Your task to perform on an android device: find which apps use the phone's location Image 0: 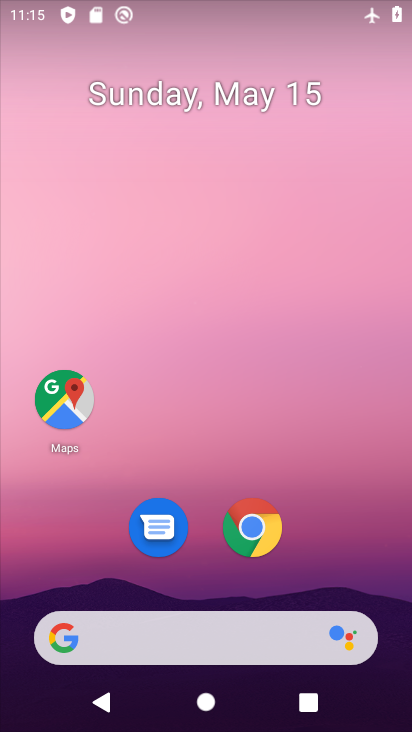
Step 0: drag from (358, 546) to (286, 8)
Your task to perform on an android device: find which apps use the phone's location Image 1: 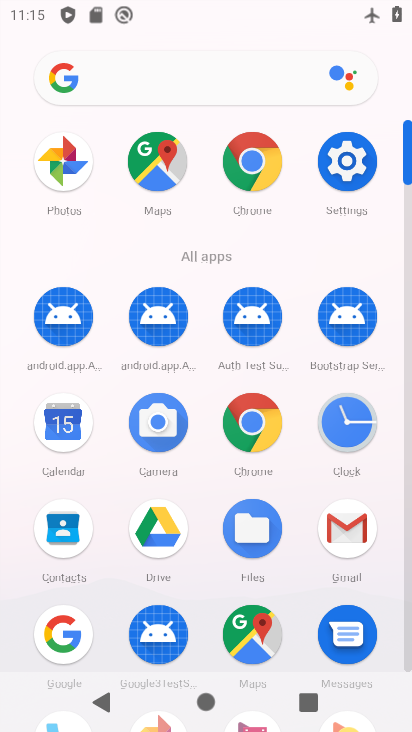
Step 1: drag from (18, 560) to (9, 209)
Your task to perform on an android device: find which apps use the phone's location Image 2: 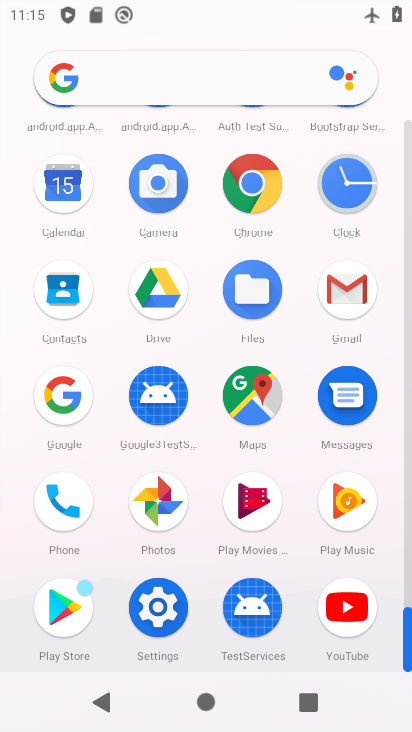
Step 2: click (158, 605)
Your task to perform on an android device: find which apps use the phone's location Image 3: 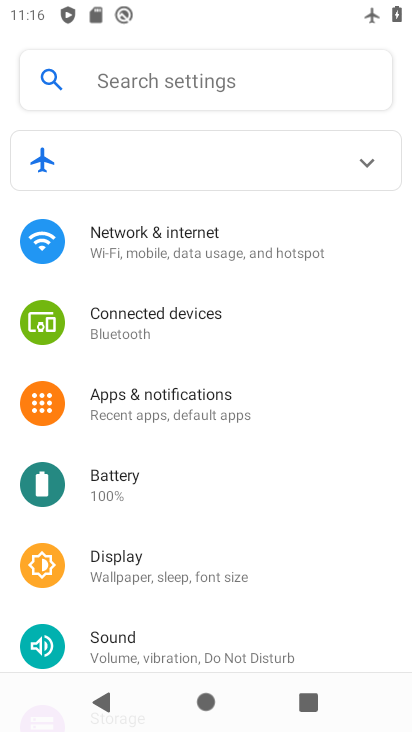
Step 3: drag from (284, 574) to (278, 193)
Your task to perform on an android device: find which apps use the phone's location Image 4: 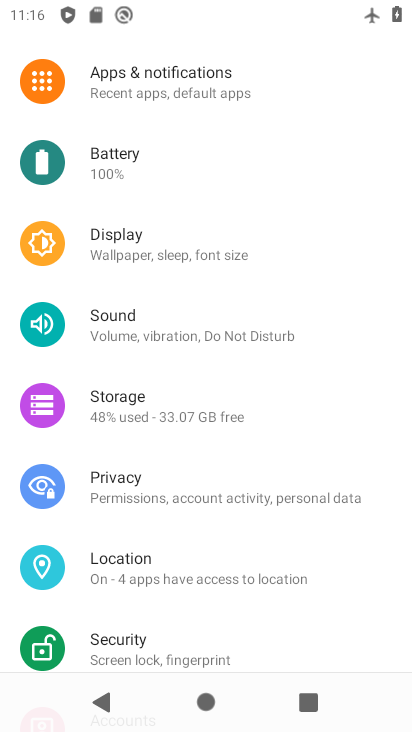
Step 4: click (136, 585)
Your task to perform on an android device: find which apps use the phone's location Image 5: 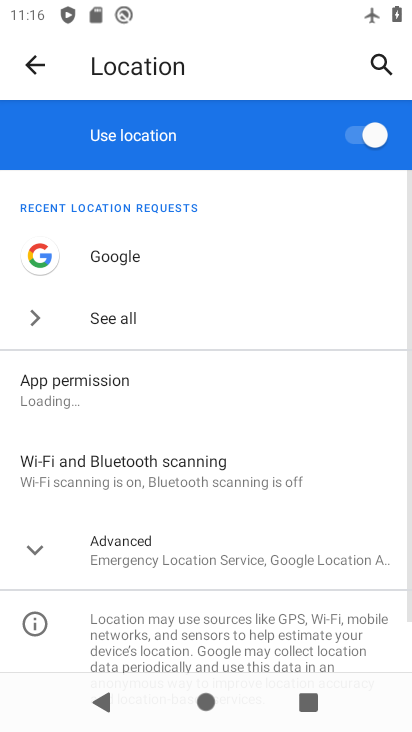
Step 5: click (165, 373)
Your task to perform on an android device: find which apps use the phone's location Image 6: 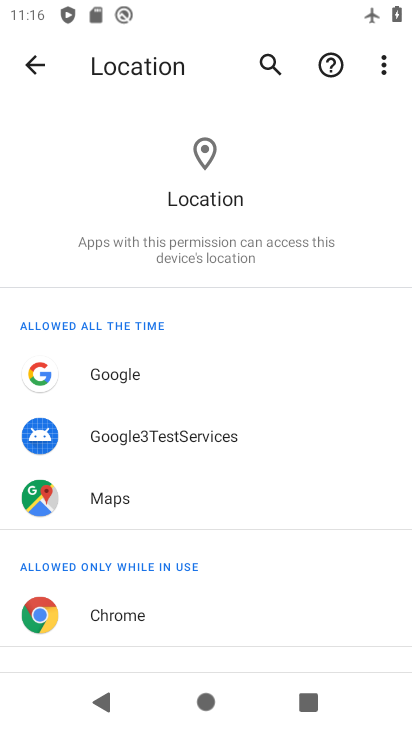
Step 6: task complete